Your task to perform on an android device: Search for Italian restaurants on Maps Image 0: 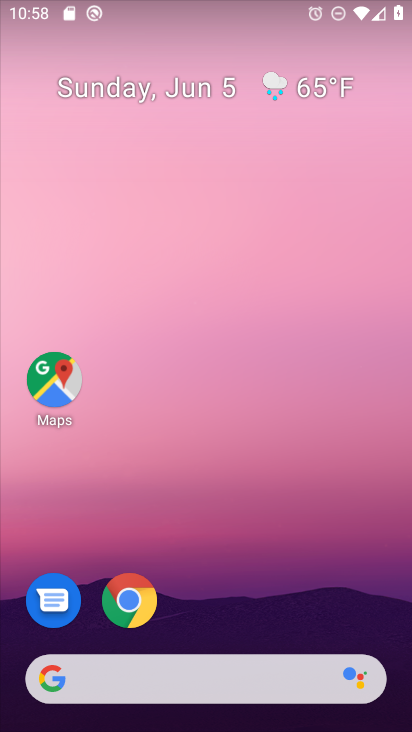
Step 0: drag from (381, 651) to (235, 79)
Your task to perform on an android device: Search for Italian restaurants on Maps Image 1: 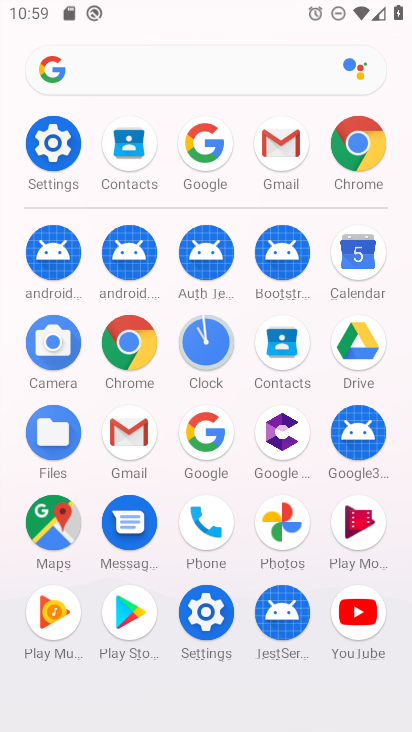
Step 1: click (43, 516)
Your task to perform on an android device: Search for Italian restaurants on Maps Image 2: 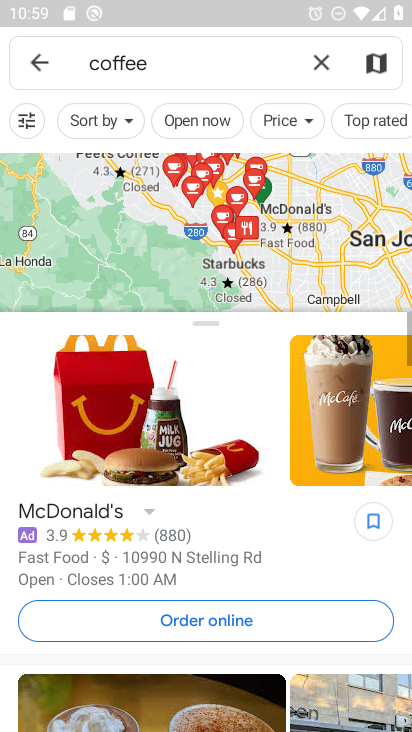
Step 2: click (323, 66)
Your task to perform on an android device: Search for Italian restaurants on Maps Image 3: 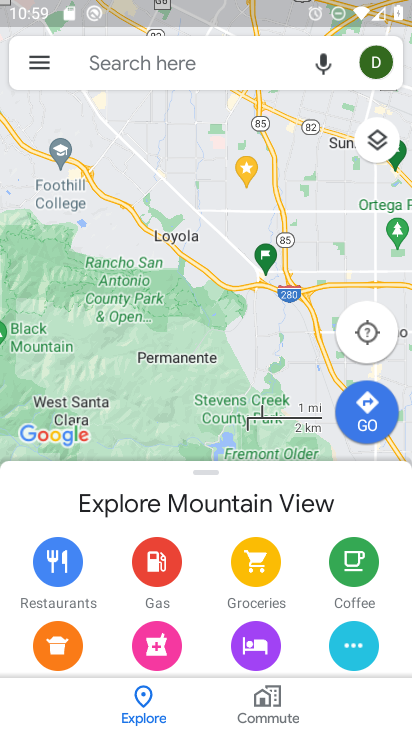
Step 3: click (137, 68)
Your task to perform on an android device: Search for Italian restaurants on Maps Image 4: 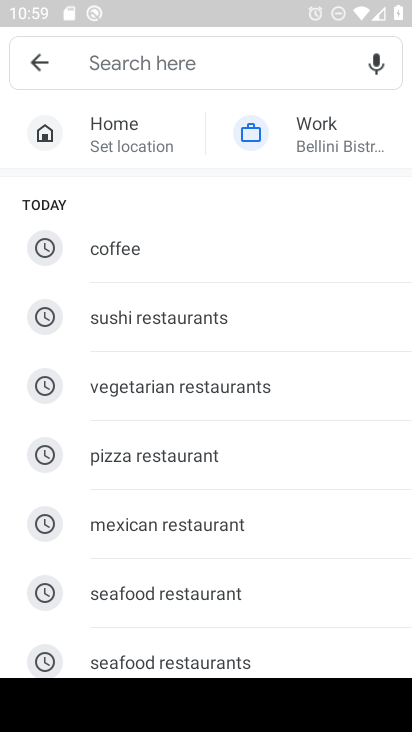
Step 4: drag from (195, 618) to (204, 250)
Your task to perform on an android device: Search for Italian restaurants on Maps Image 5: 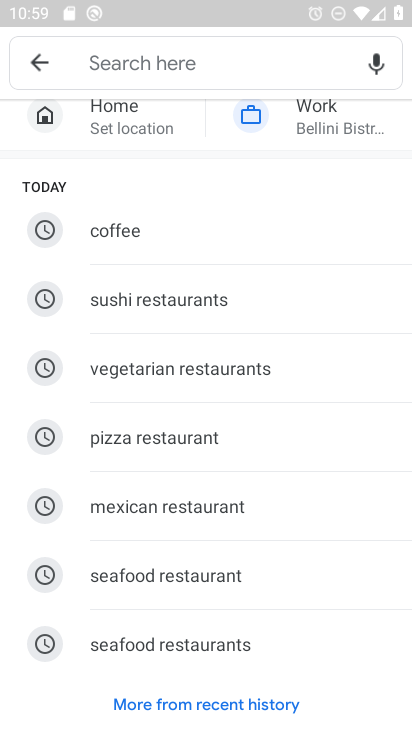
Step 5: click (164, 71)
Your task to perform on an android device: Search for Italian restaurants on Maps Image 6: 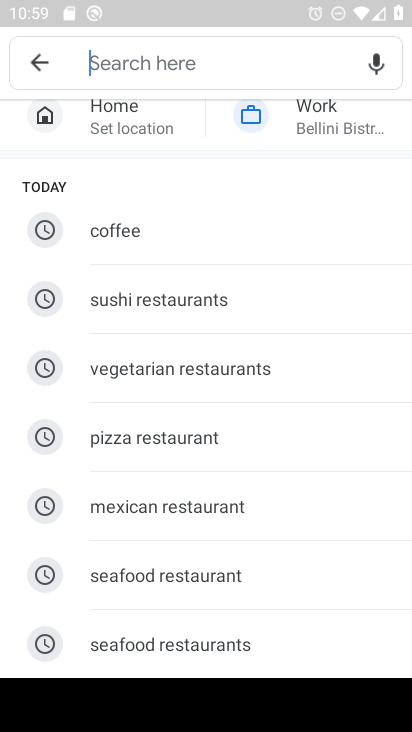
Step 6: type "Itlalain restaurnats"
Your task to perform on an android device: Search for Italian restaurants on Maps Image 7: 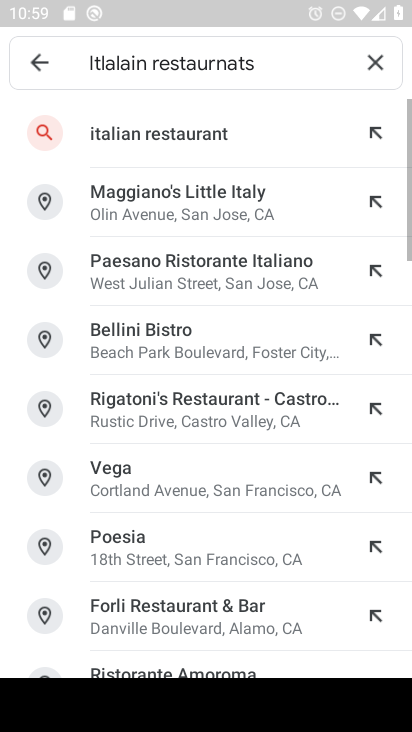
Step 7: click (176, 138)
Your task to perform on an android device: Search for Italian restaurants on Maps Image 8: 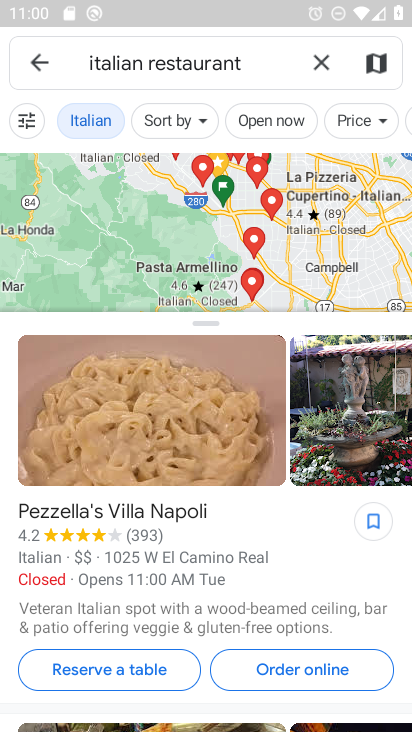
Step 8: task complete